Your task to perform on an android device: Open sound settings Image 0: 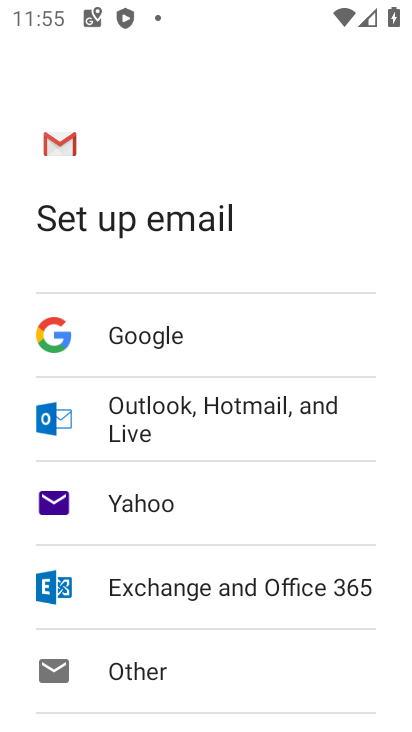
Step 0: press home button
Your task to perform on an android device: Open sound settings Image 1: 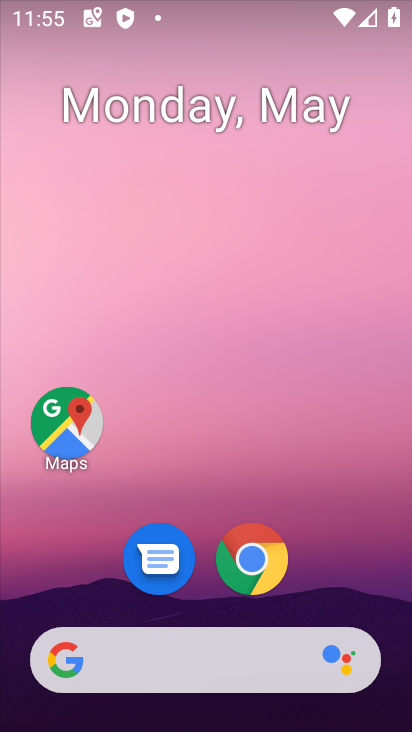
Step 1: drag from (355, 578) to (366, 101)
Your task to perform on an android device: Open sound settings Image 2: 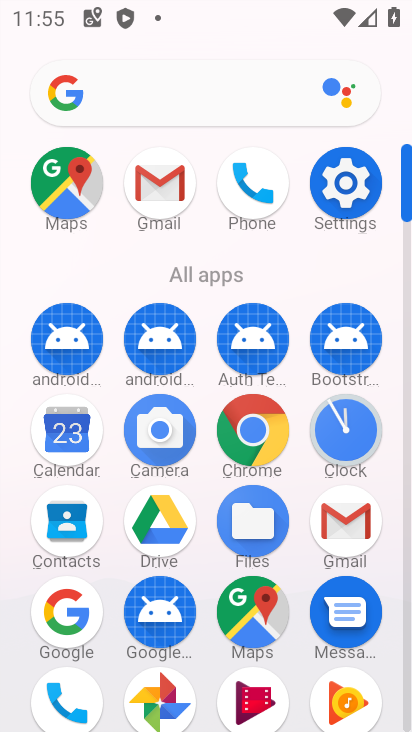
Step 2: click (338, 184)
Your task to perform on an android device: Open sound settings Image 3: 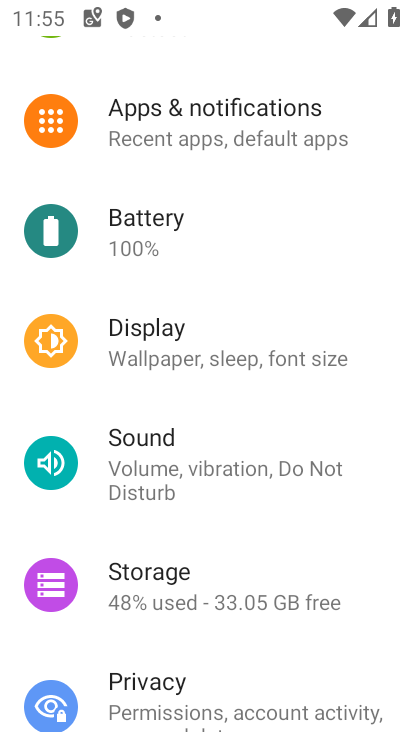
Step 3: click (204, 476)
Your task to perform on an android device: Open sound settings Image 4: 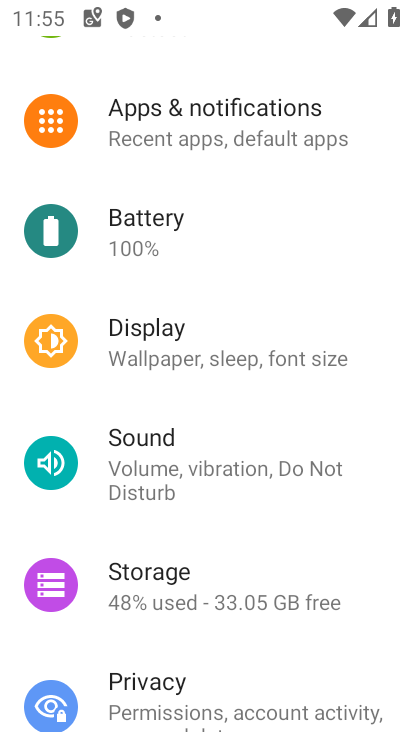
Step 4: task complete